Your task to perform on an android device: toggle data saver in the chrome app Image 0: 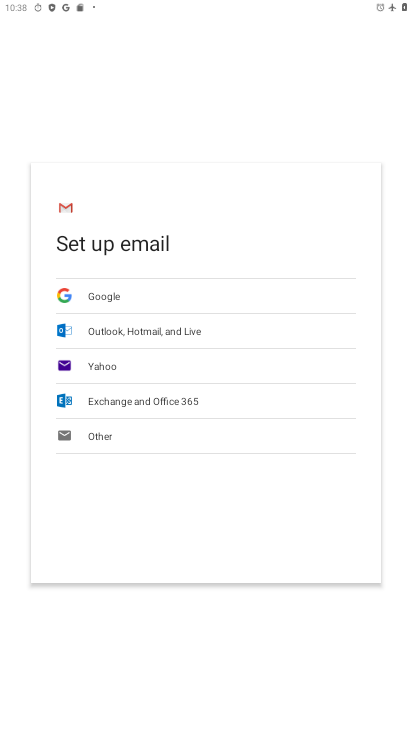
Step 0: press home button
Your task to perform on an android device: toggle data saver in the chrome app Image 1: 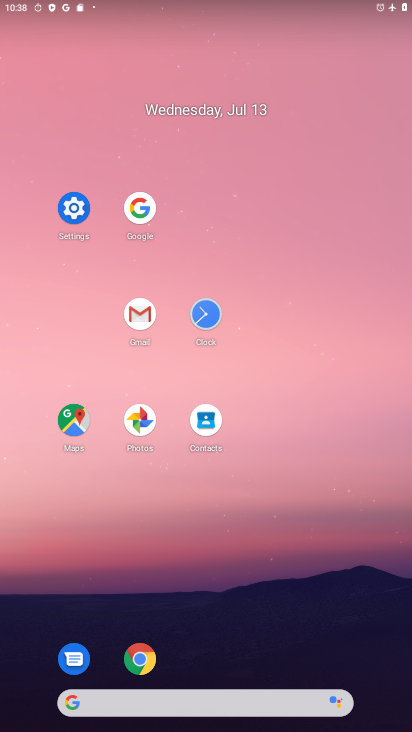
Step 1: click (144, 657)
Your task to perform on an android device: toggle data saver in the chrome app Image 2: 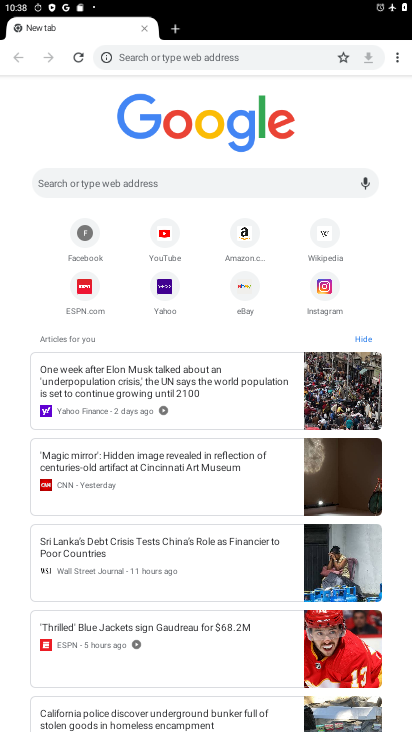
Step 2: click (391, 56)
Your task to perform on an android device: toggle data saver in the chrome app Image 3: 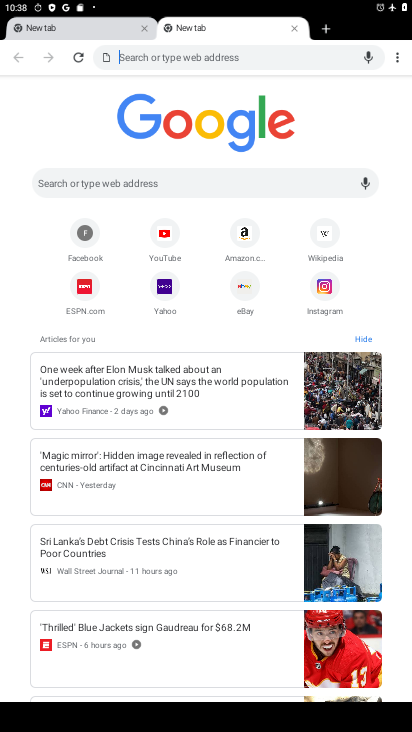
Step 3: click (397, 65)
Your task to perform on an android device: toggle data saver in the chrome app Image 4: 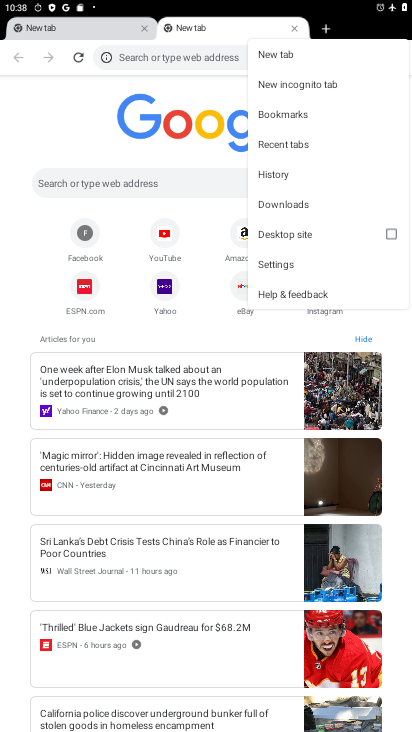
Step 4: click (286, 268)
Your task to perform on an android device: toggle data saver in the chrome app Image 5: 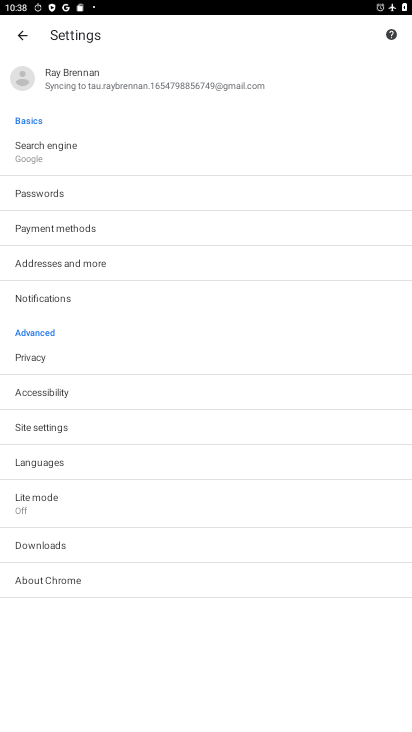
Step 5: click (110, 504)
Your task to perform on an android device: toggle data saver in the chrome app Image 6: 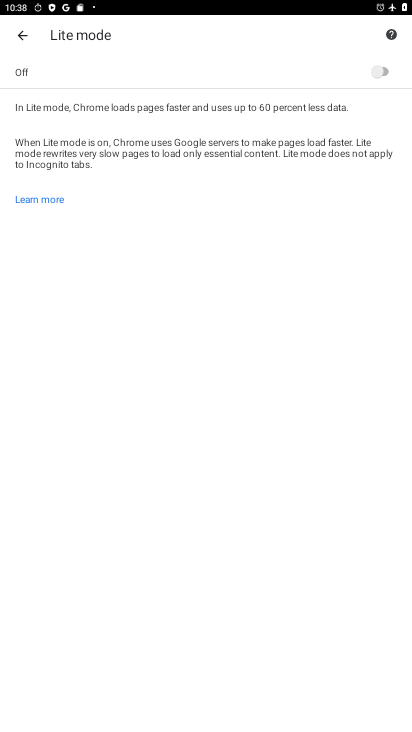
Step 6: click (382, 72)
Your task to perform on an android device: toggle data saver in the chrome app Image 7: 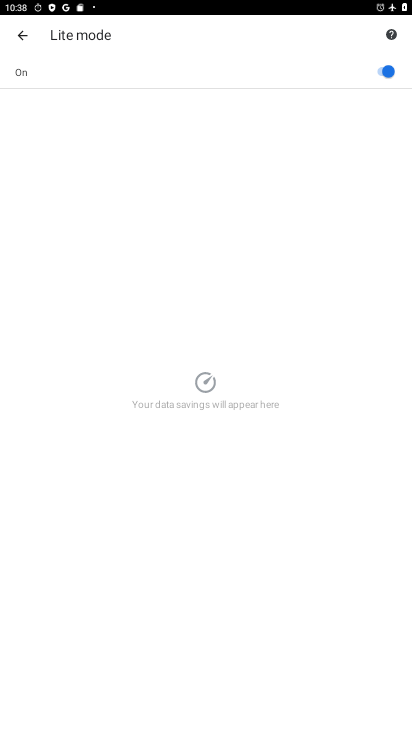
Step 7: task complete